Your task to perform on an android device: check storage Image 0: 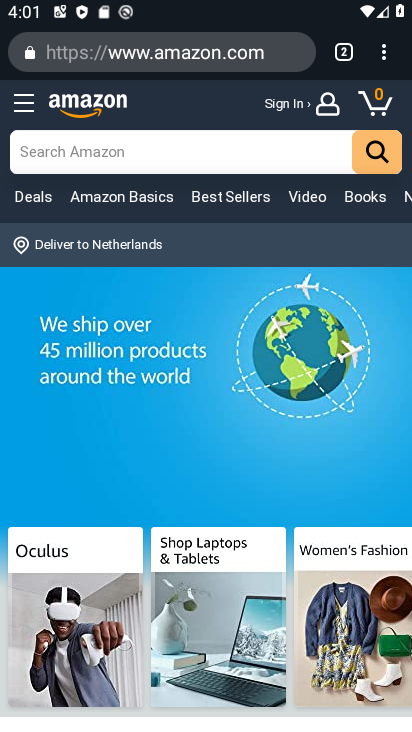
Step 0: press home button
Your task to perform on an android device: check storage Image 1: 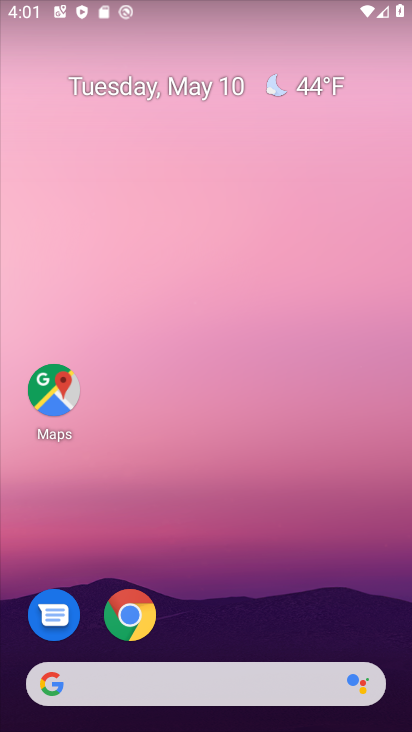
Step 1: drag from (209, 731) to (218, 124)
Your task to perform on an android device: check storage Image 2: 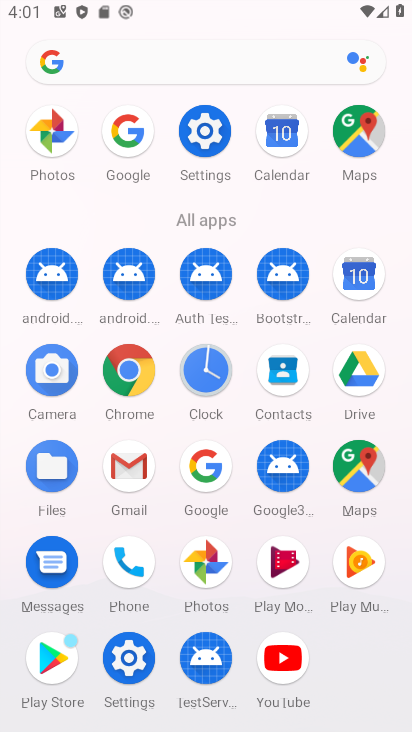
Step 2: click (206, 135)
Your task to perform on an android device: check storage Image 3: 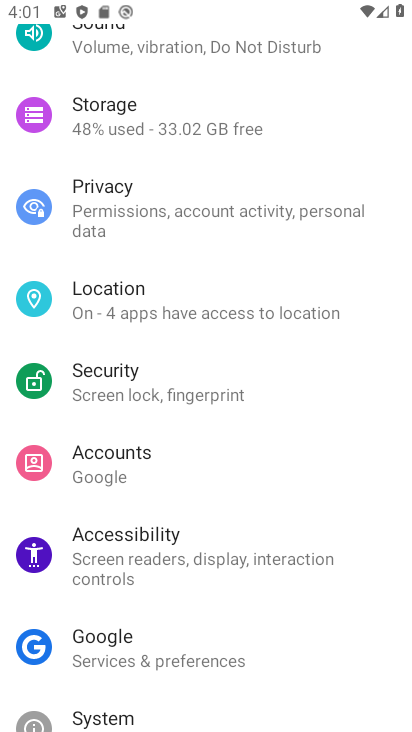
Step 3: drag from (137, 681) to (182, 333)
Your task to perform on an android device: check storage Image 4: 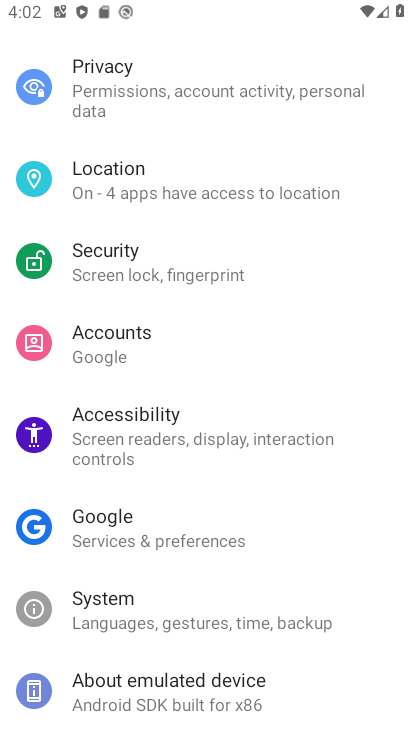
Step 4: drag from (200, 130) to (186, 427)
Your task to perform on an android device: check storage Image 5: 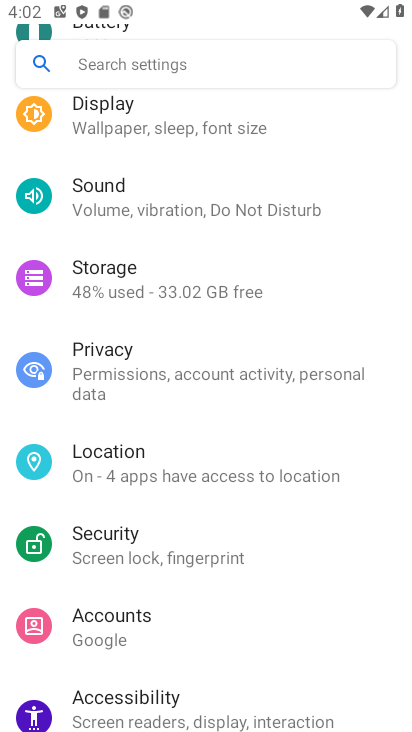
Step 5: click (106, 277)
Your task to perform on an android device: check storage Image 6: 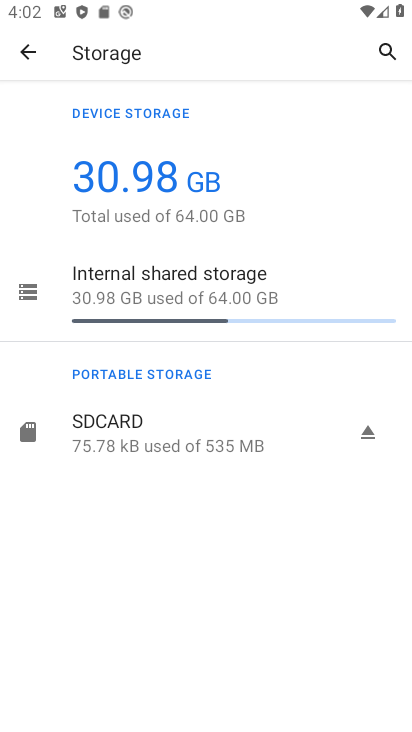
Step 6: task complete